Your task to perform on an android device: Turn off the flashlight Image 0: 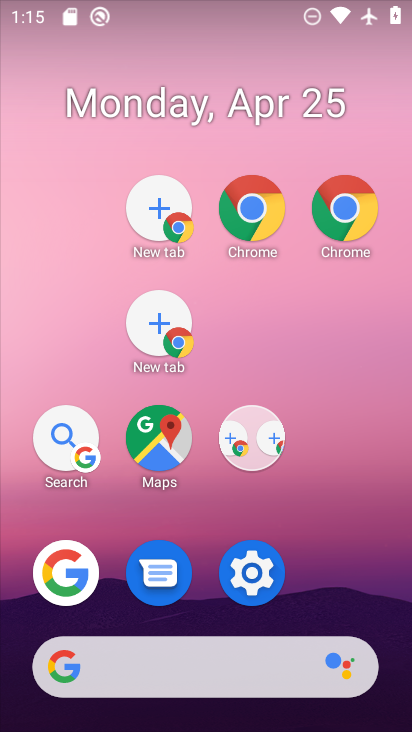
Step 0: drag from (286, 715) to (209, 26)
Your task to perform on an android device: Turn off the flashlight Image 1: 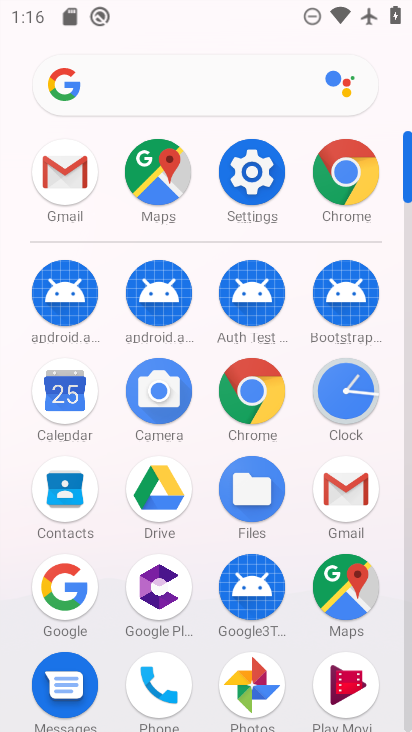
Step 1: task complete